Your task to perform on an android device: Show me popular videos on Youtube Image 0: 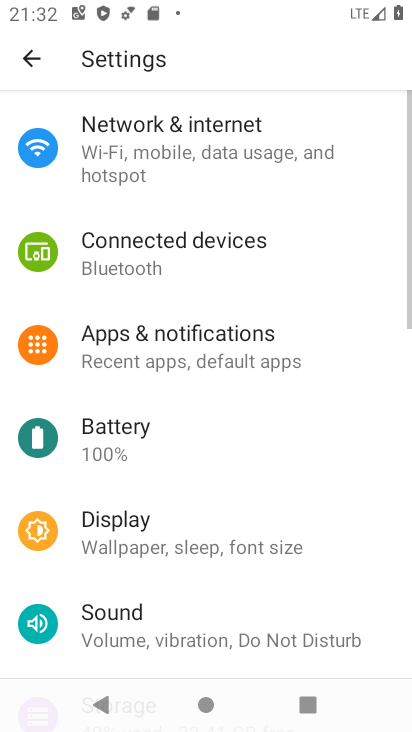
Step 0: press home button
Your task to perform on an android device: Show me popular videos on Youtube Image 1: 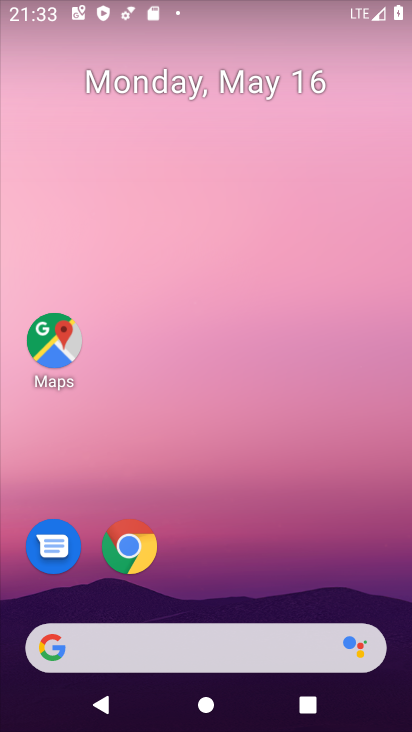
Step 1: drag from (267, 676) to (237, 309)
Your task to perform on an android device: Show me popular videos on Youtube Image 2: 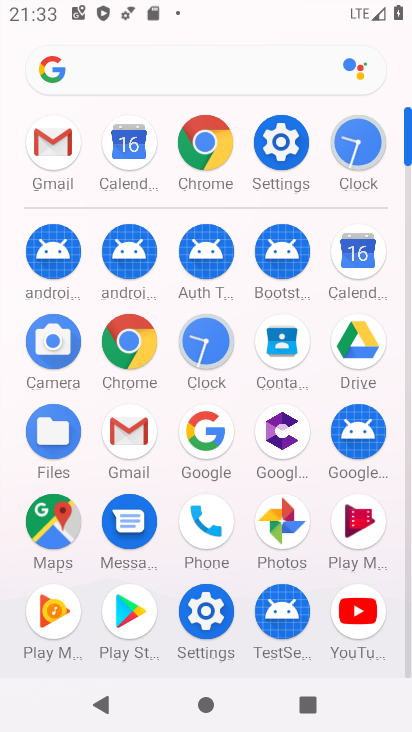
Step 2: click (365, 620)
Your task to perform on an android device: Show me popular videos on Youtube Image 3: 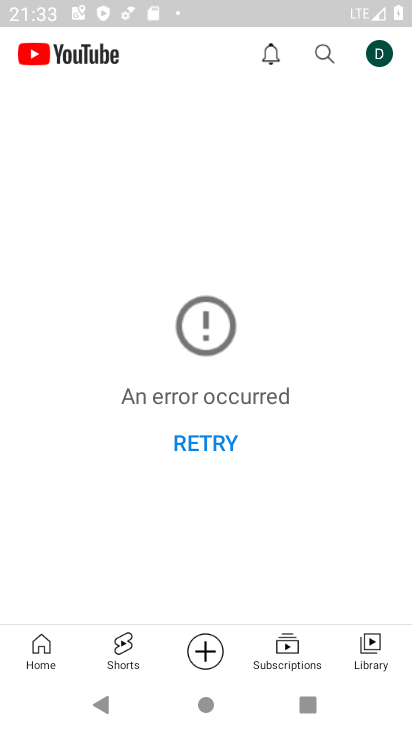
Step 3: click (297, 649)
Your task to perform on an android device: Show me popular videos on Youtube Image 4: 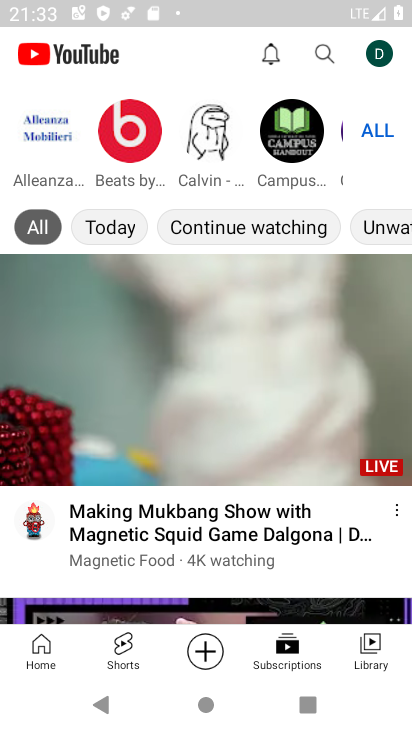
Step 4: click (331, 55)
Your task to perform on an android device: Show me popular videos on Youtube Image 5: 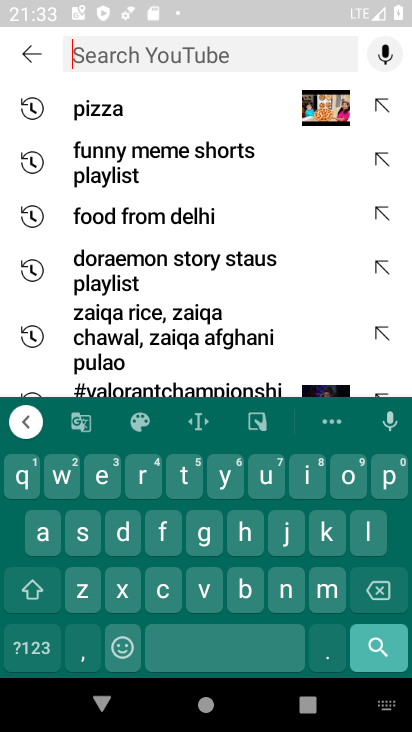
Step 5: click (385, 484)
Your task to perform on an android device: Show me popular videos on Youtube Image 6: 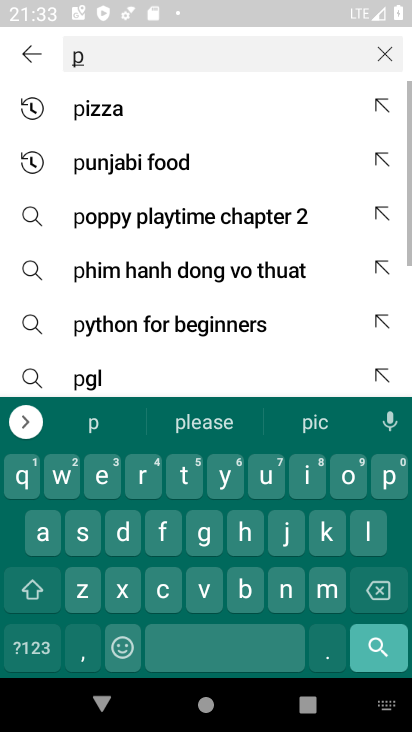
Step 6: click (345, 480)
Your task to perform on an android device: Show me popular videos on Youtube Image 7: 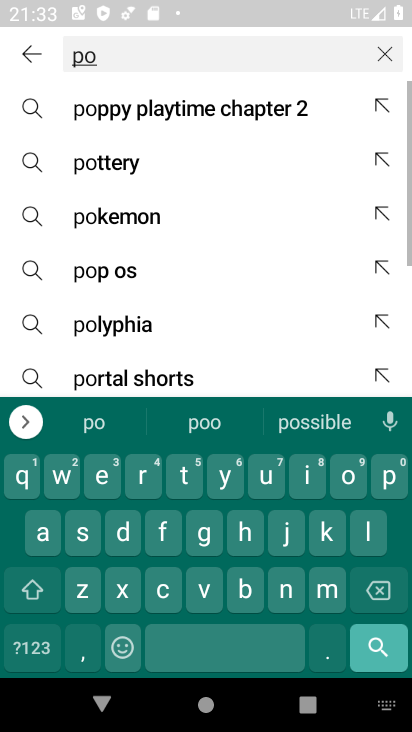
Step 7: click (391, 476)
Your task to perform on an android device: Show me popular videos on Youtube Image 8: 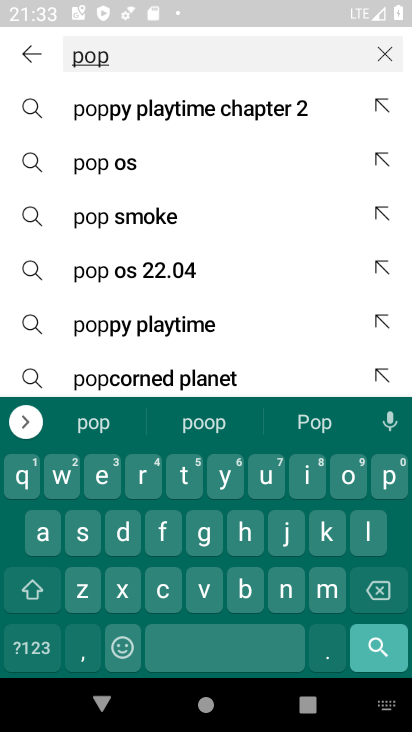
Step 8: click (267, 488)
Your task to perform on an android device: Show me popular videos on Youtube Image 9: 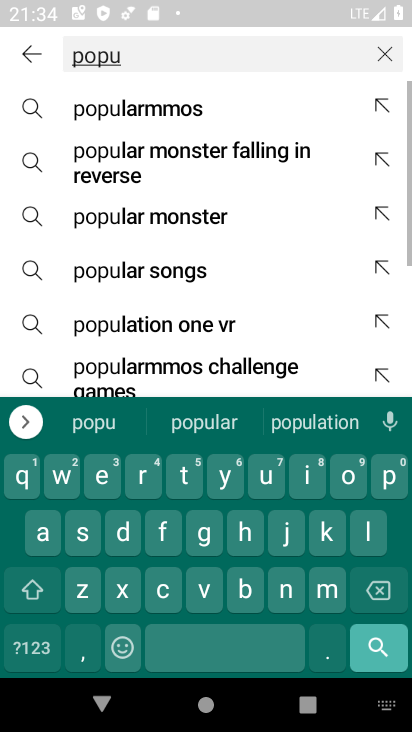
Step 9: click (219, 424)
Your task to perform on an android device: Show me popular videos on Youtube Image 10: 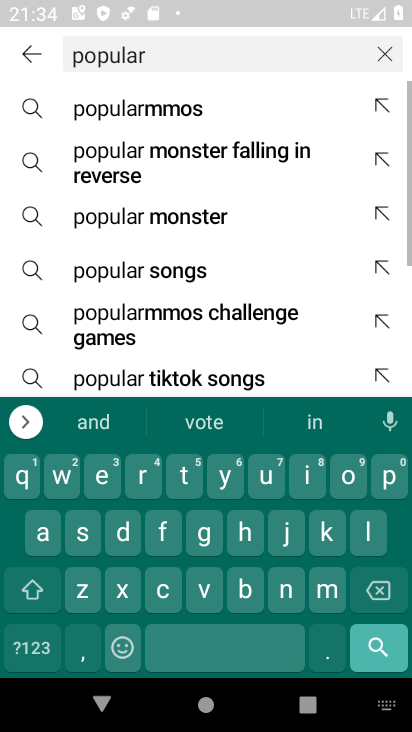
Step 10: click (204, 594)
Your task to perform on an android device: Show me popular videos on Youtube Image 11: 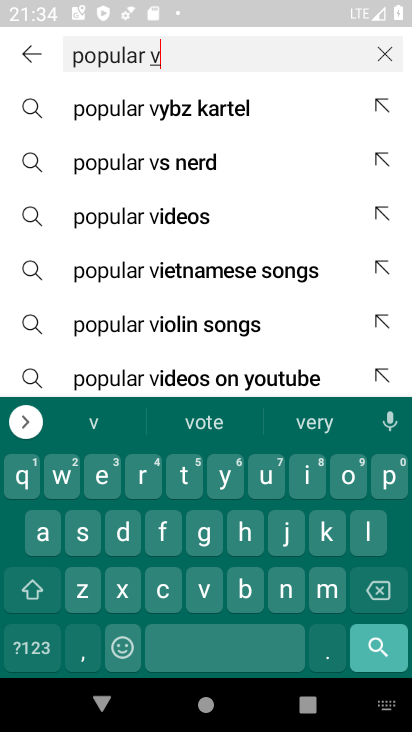
Step 11: click (164, 213)
Your task to perform on an android device: Show me popular videos on Youtube Image 12: 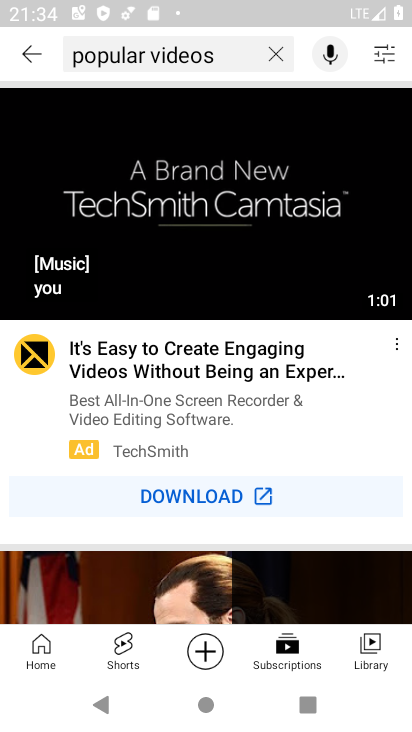
Step 12: task complete